Your task to perform on an android device: Go to Yahoo.com Image 0: 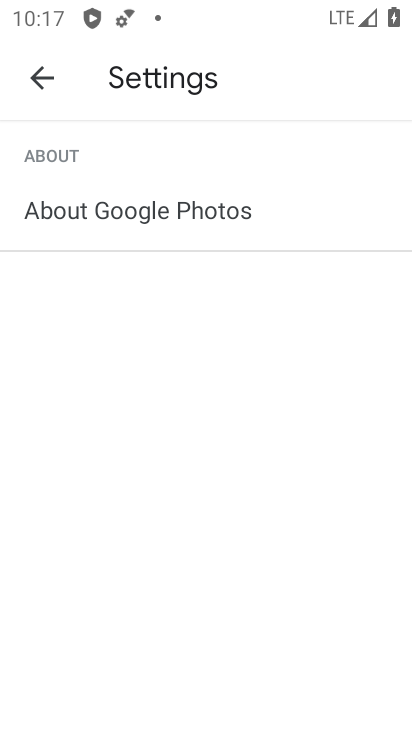
Step 0: press home button
Your task to perform on an android device: Go to Yahoo.com Image 1: 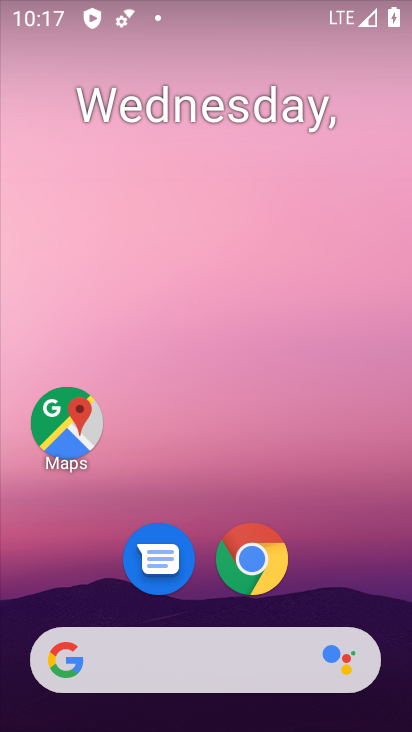
Step 1: click (272, 557)
Your task to perform on an android device: Go to Yahoo.com Image 2: 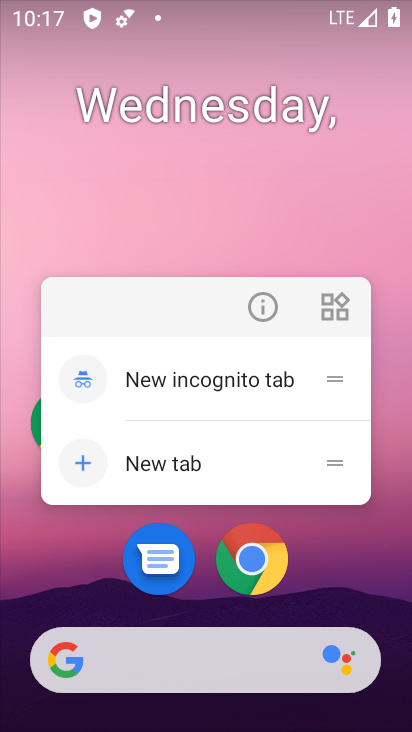
Step 2: click (272, 557)
Your task to perform on an android device: Go to Yahoo.com Image 3: 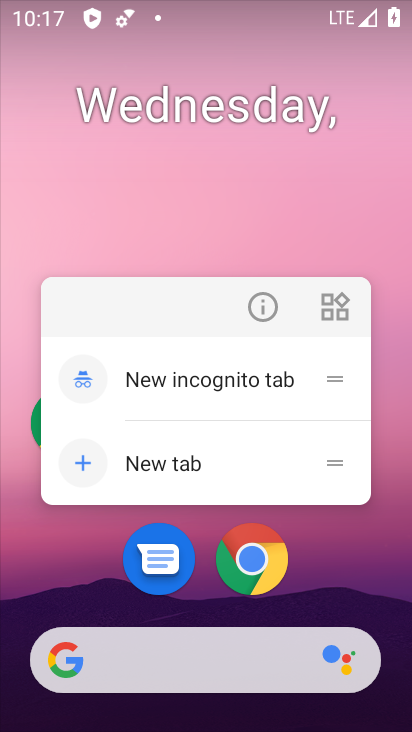
Step 3: click (272, 557)
Your task to perform on an android device: Go to Yahoo.com Image 4: 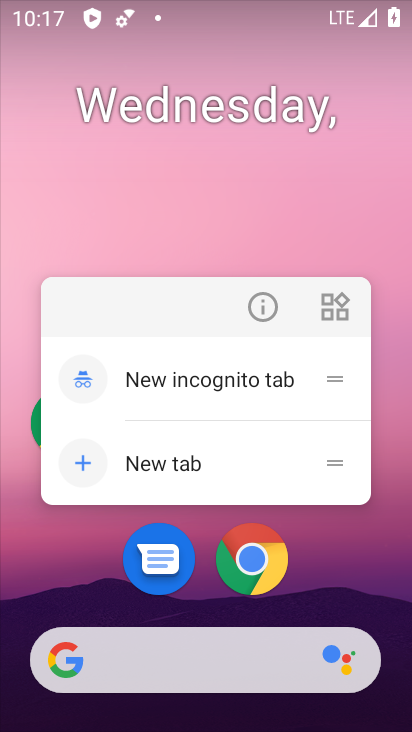
Step 4: click (272, 557)
Your task to perform on an android device: Go to Yahoo.com Image 5: 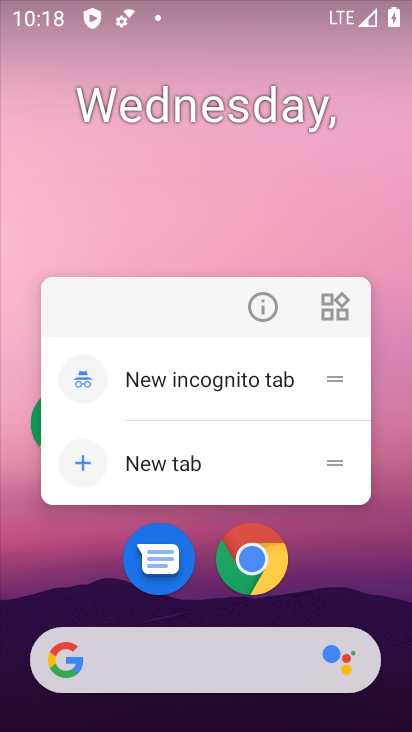
Step 5: click (259, 562)
Your task to perform on an android device: Go to Yahoo.com Image 6: 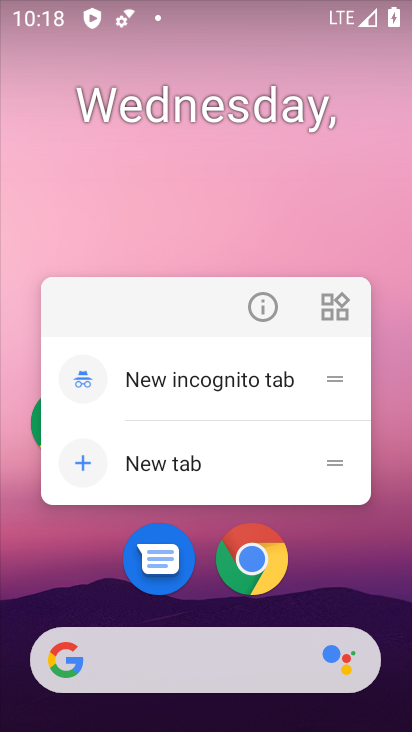
Step 6: click (259, 562)
Your task to perform on an android device: Go to Yahoo.com Image 7: 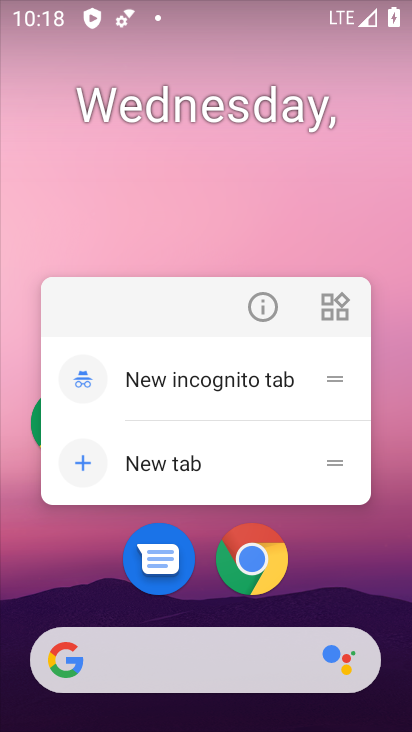
Step 7: click (259, 562)
Your task to perform on an android device: Go to Yahoo.com Image 8: 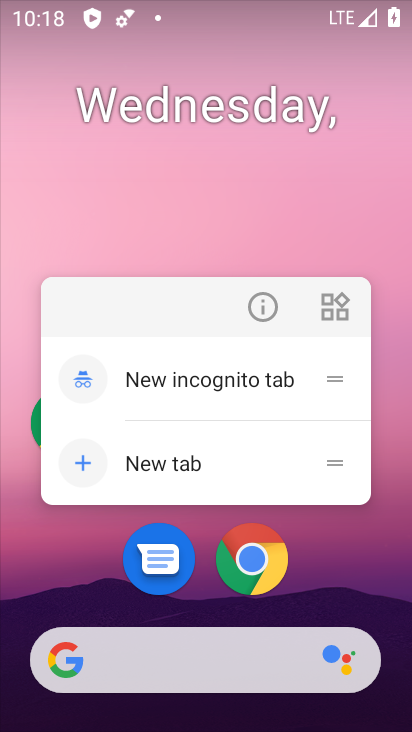
Step 8: click (259, 562)
Your task to perform on an android device: Go to Yahoo.com Image 9: 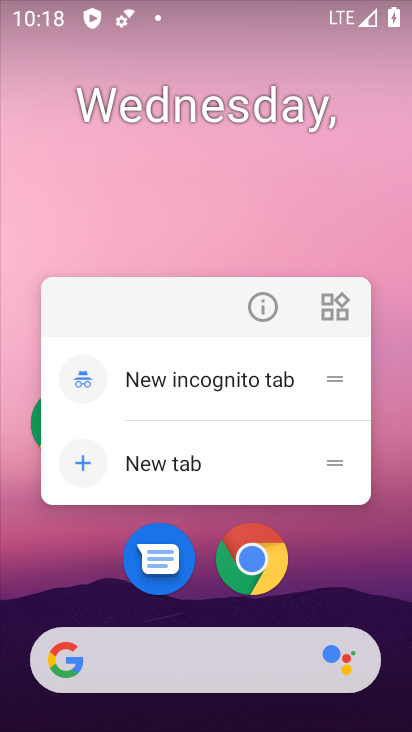
Step 9: click (259, 562)
Your task to perform on an android device: Go to Yahoo.com Image 10: 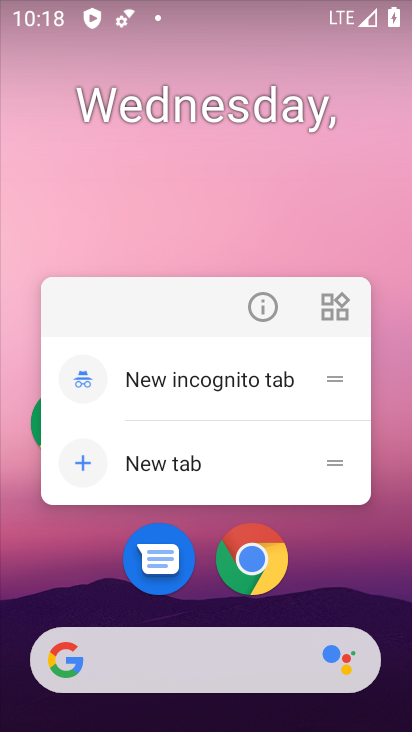
Step 10: click (259, 562)
Your task to perform on an android device: Go to Yahoo.com Image 11: 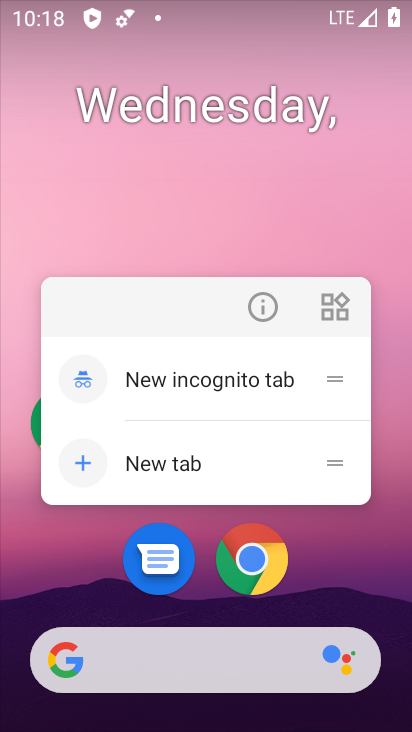
Step 11: click (259, 562)
Your task to perform on an android device: Go to Yahoo.com Image 12: 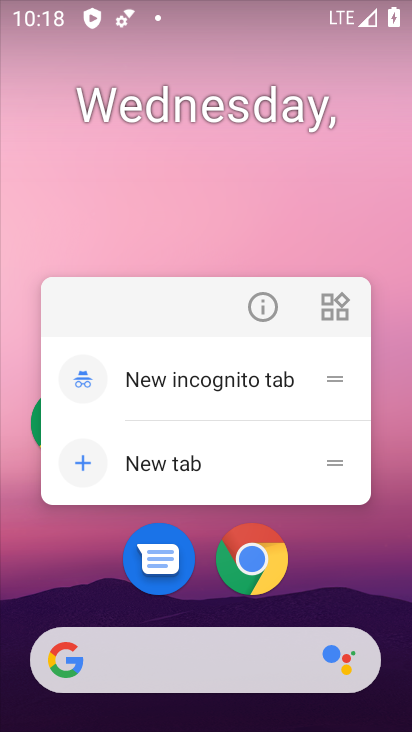
Step 12: click (259, 562)
Your task to perform on an android device: Go to Yahoo.com Image 13: 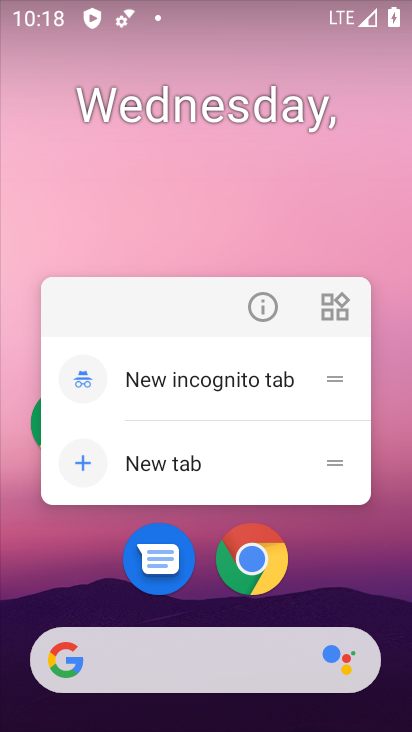
Step 13: click (376, 592)
Your task to perform on an android device: Go to Yahoo.com Image 14: 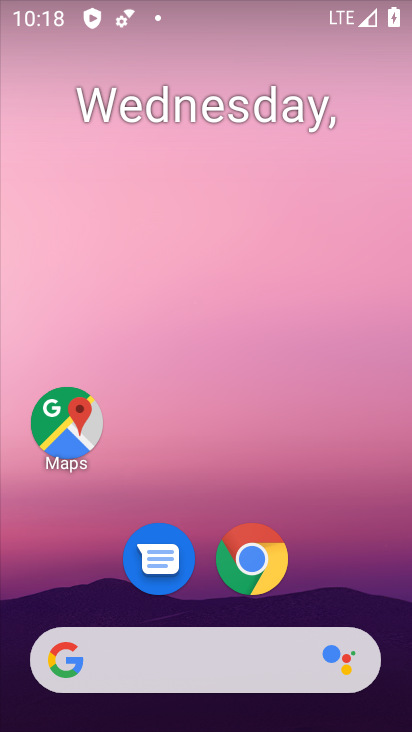
Step 14: drag from (372, 606) to (314, 0)
Your task to perform on an android device: Go to Yahoo.com Image 15: 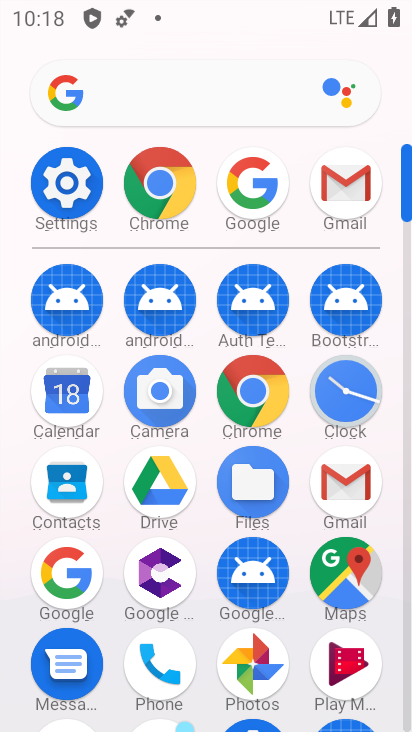
Step 15: click (270, 398)
Your task to perform on an android device: Go to Yahoo.com Image 16: 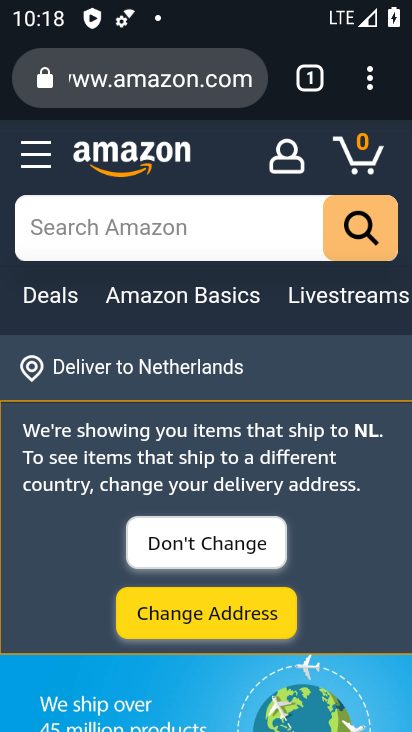
Step 16: click (167, 81)
Your task to perform on an android device: Go to Yahoo.com Image 17: 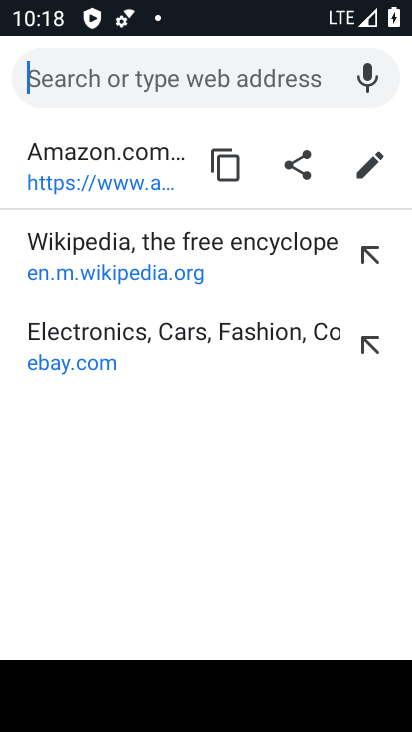
Step 17: type "yahoo"
Your task to perform on an android device: Go to Yahoo.com Image 18: 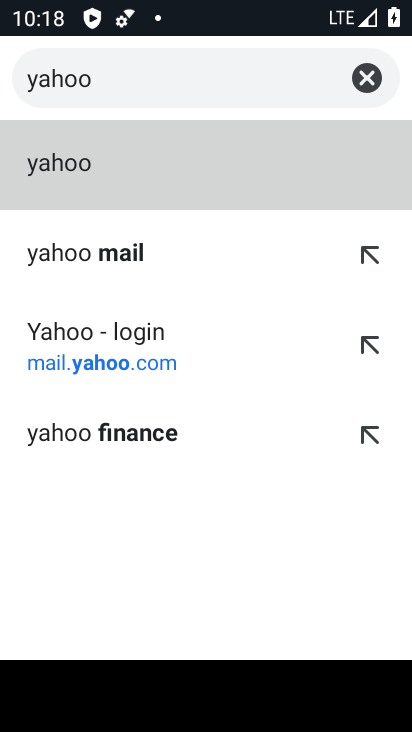
Step 18: click (44, 325)
Your task to perform on an android device: Go to Yahoo.com Image 19: 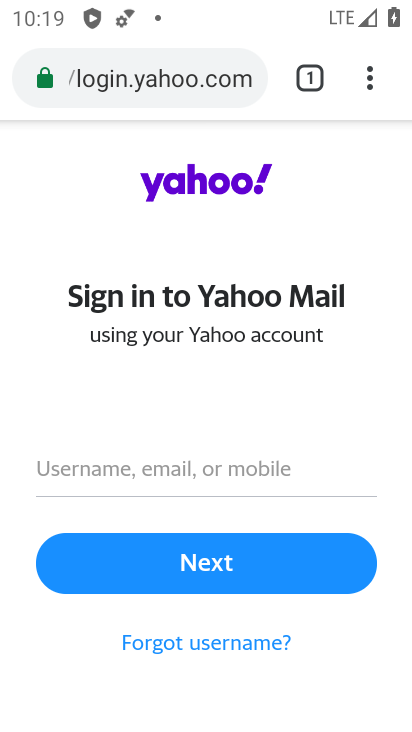
Step 19: task complete